Your task to perform on an android device: What's a good restaurant in Denver? Image 0: 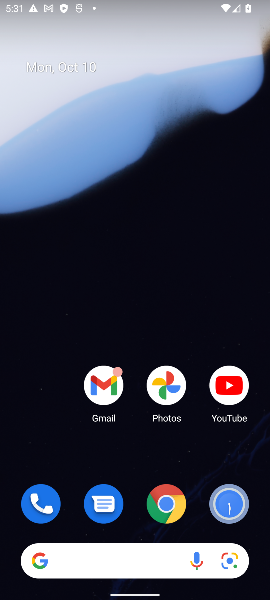
Step 0: drag from (14, 5) to (252, 7)
Your task to perform on an android device: What's a good restaurant in Denver? Image 1: 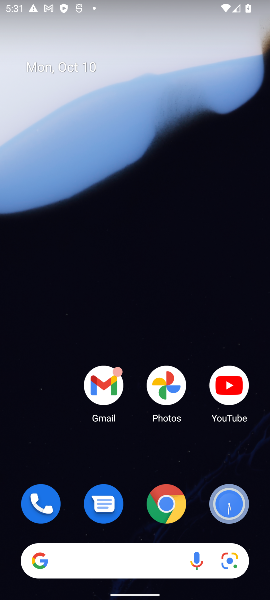
Step 1: drag from (206, 431) to (206, 106)
Your task to perform on an android device: What's a good restaurant in Denver? Image 2: 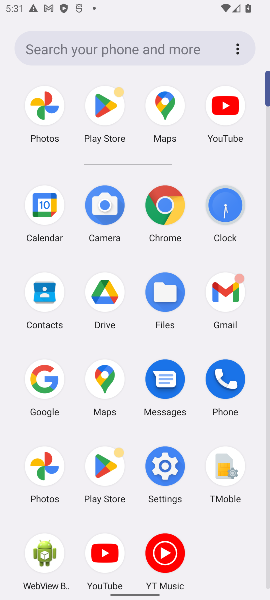
Step 2: click (179, 208)
Your task to perform on an android device: What's a good restaurant in Denver? Image 3: 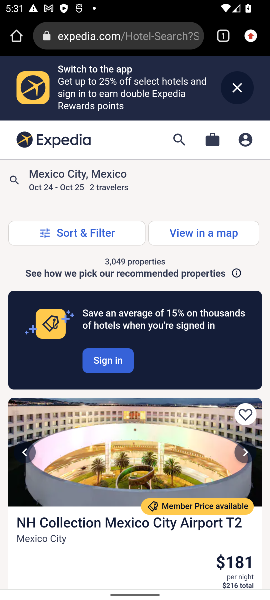
Step 3: click (136, 37)
Your task to perform on an android device: What's a good restaurant in Denver? Image 4: 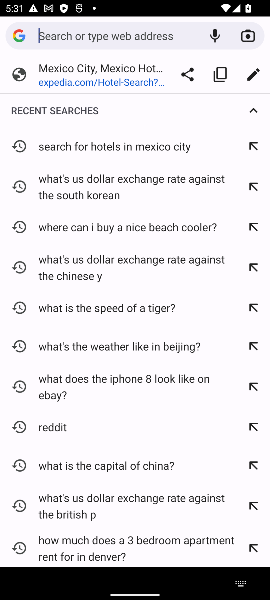
Step 4: type "What's a good restaurant in Denver?"
Your task to perform on an android device: What's a good restaurant in Denver? Image 5: 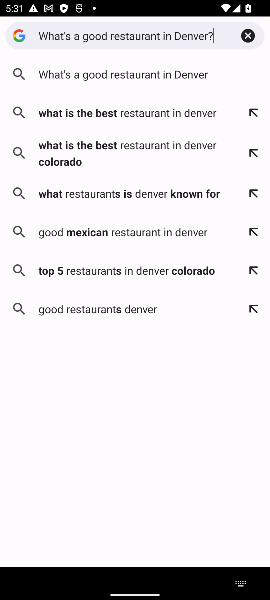
Step 5: press enter
Your task to perform on an android device: What's a good restaurant in Denver? Image 6: 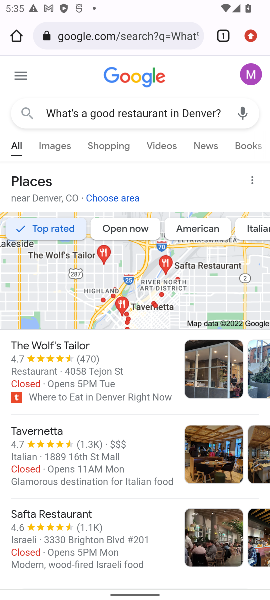
Step 6: task complete